Your task to perform on an android device: remove spam from my inbox in the gmail app Image 0: 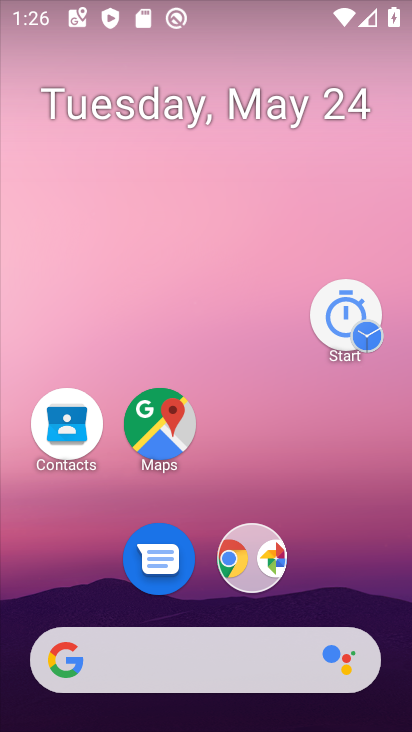
Step 0: drag from (270, 628) to (217, 242)
Your task to perform on an android device: remove spam from my inbox in the gmail app Image 1: 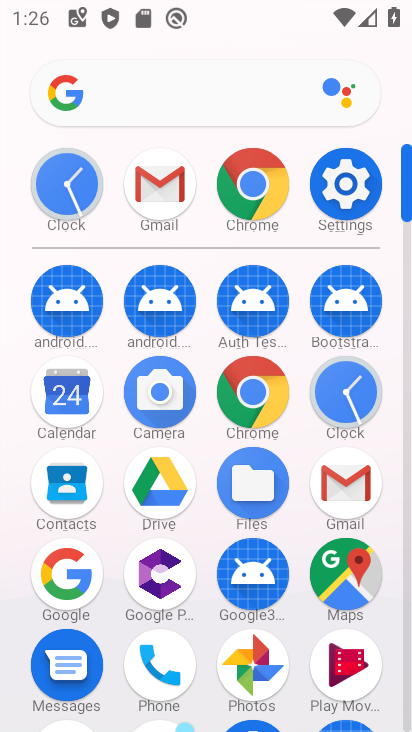
Step 1: click (328, 475)
Your task to perform on an android device: remove spam from my inbox in the gmail app Image 2: 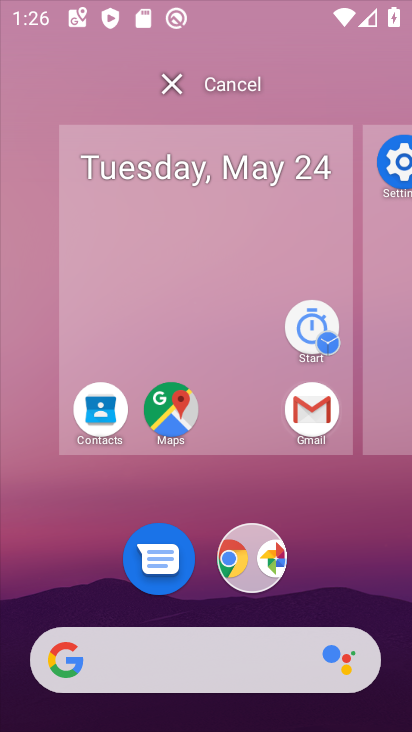
Step 2: click (347, 493)
Your task to perform on an android device: remove spam from my inbox in the gmail app Image 3: 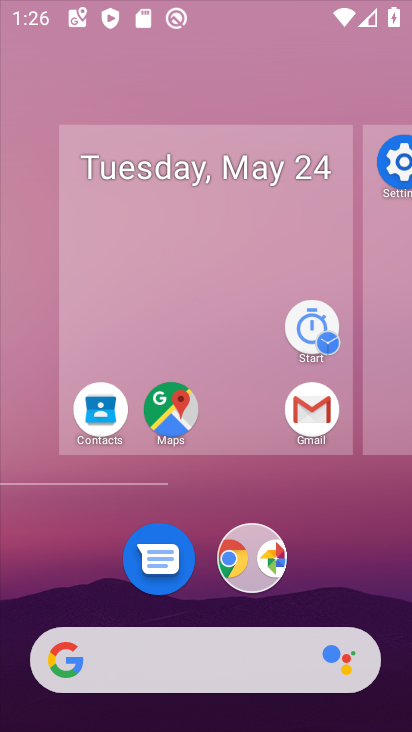
Step 3: click (349, 491)
Your task to perform on an android device: remove spam from my inbox in the gmail app Image 4: 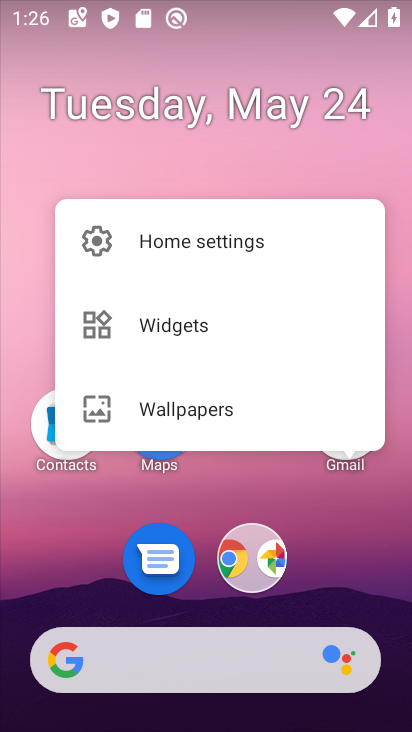
Step 4: drag from (300, 688) to (160, 34)
Your task to perform on an android device: remove spam from my inbox in the gmail app Image 5: 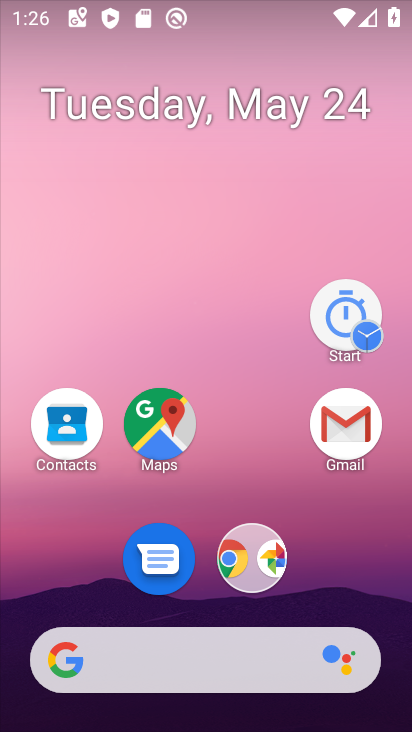
Step 5: drag from (322, 652) to (158, 31)
Your task to perform on an android device: remove spam from my inbox in the gmail app Image 6: 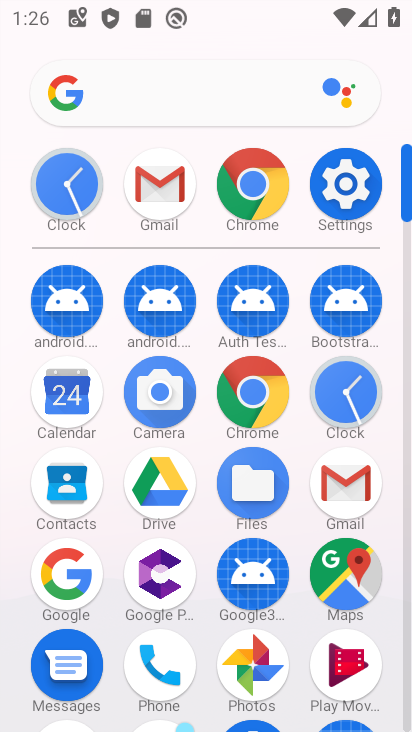
Step 6: drag from (342, 568) to (212, 11)
Your task to perform on an android device: remove spam from my inbox in the gmail app Image 7: 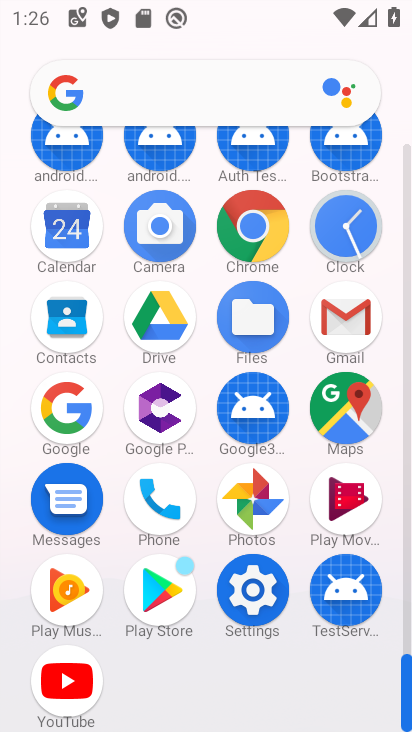
Step 7: click (333, 317)
Your task to perform on an android device: remove spam from my inbox in the gmail app Image 8: 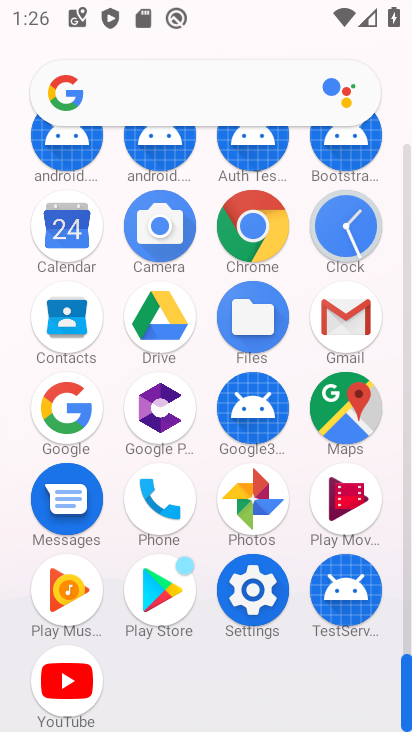
Step 8: click (333, 317)
Your task to perform on an android device: remove spam from my inbox in the gmail app Image 9: 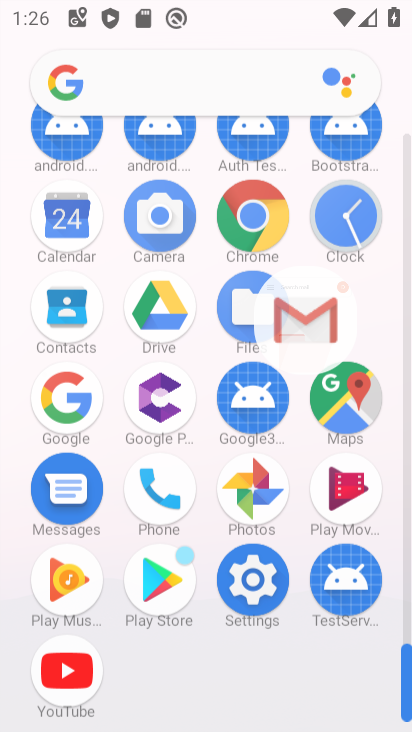
Step 9: click (341, 311)
Your task to perform on an android device: remove spam from my inbox in the gmail app Image 10: 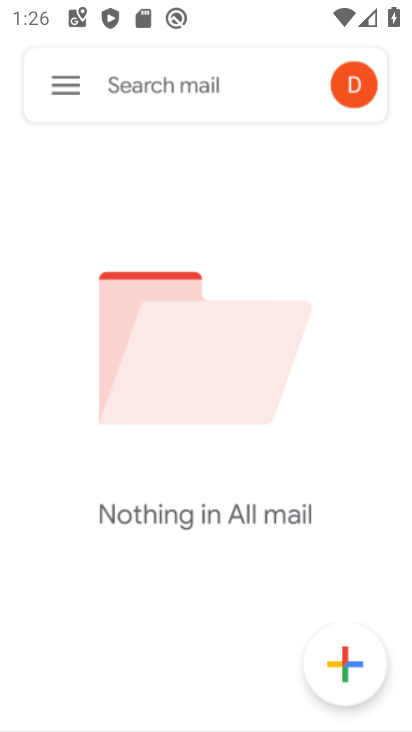
Step 10: click (348, 309)
Your task to perform on an android device: remove spam from my inbox in the gmail app Image 11: 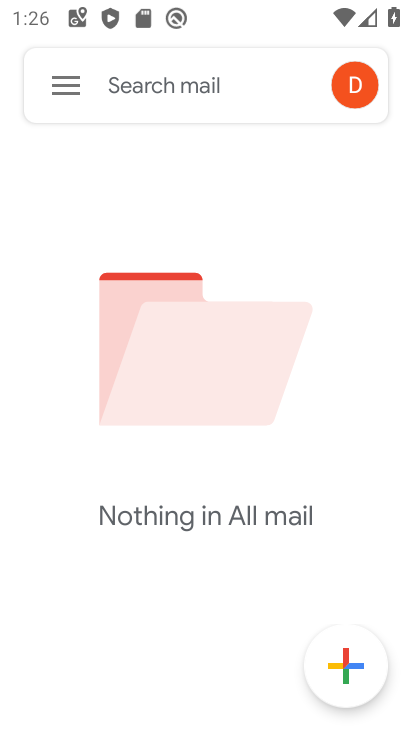
Step 11: click (348, 309)
Your task to perform on an android device: remove spam from my inbox in the gmail app Image 12: 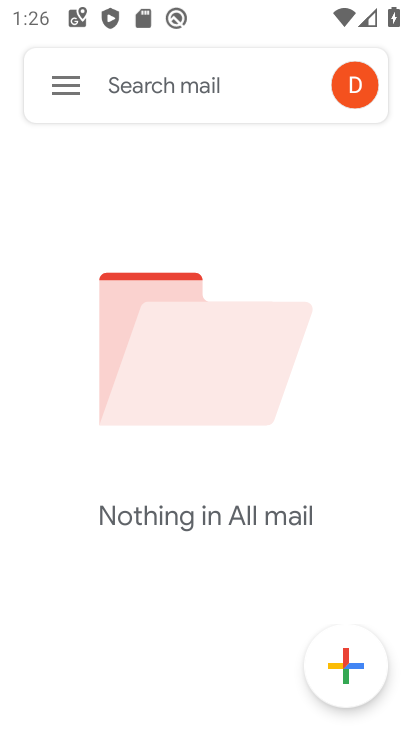
Step 12: click (78, 87)
Your task to perform on an android device: remove spam from my inbox in the gmail app Image 13: 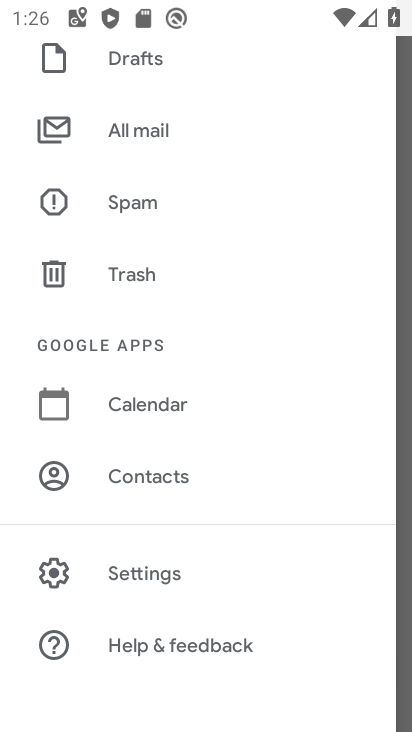
Step 13: click (149, 570)
Your task to perform on an android device: remove spam from my inbox in the gmail app Image 14: 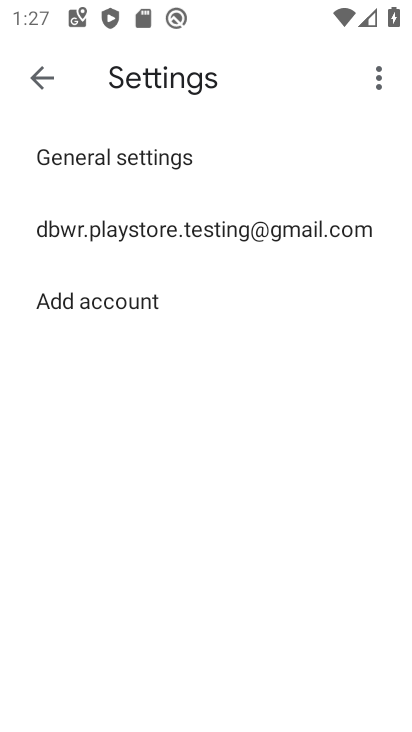
Step 14: click (145, 233)
Your task to perform on an android device: remove spam from my inbox in the gmail app Image 15: 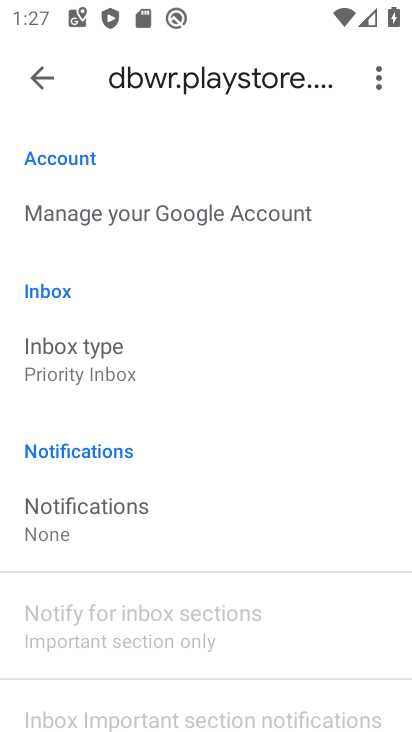
Step 15: drag from (134, 523) to (120, 190)
Your task to perform on an android device: remove spam from my inbox in the gmail app Image 16: 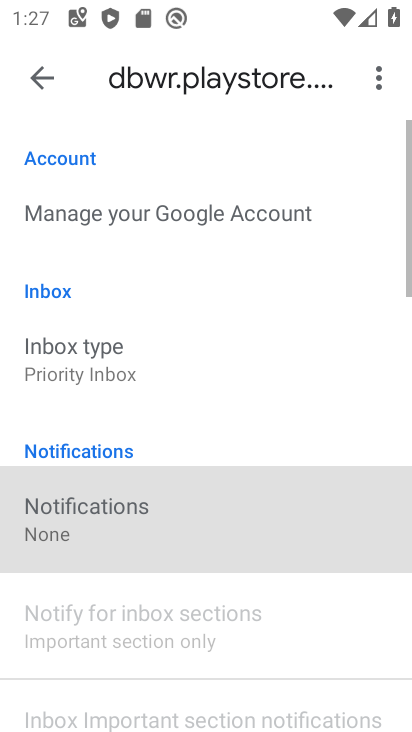
Step 16: drag from (139, 506) to (114, 77)
Your task to perform on an android device: remove spam from my inbox in the gmail app Image 17: 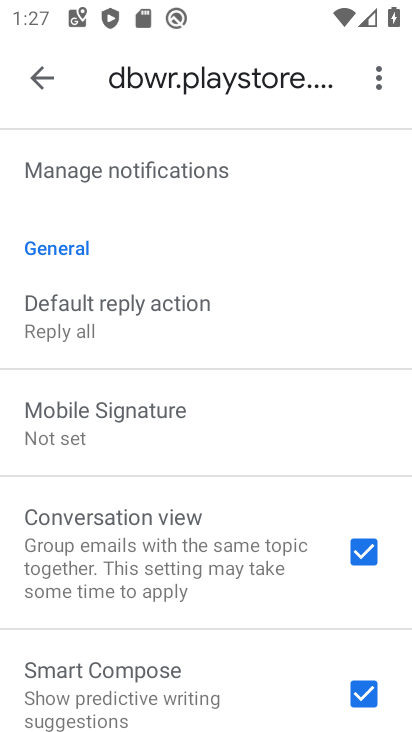
Step 17: drag from (163, 543) to (97, 74)
Your task to perform on an android device: remove spam from my inbox in the gmail app Image 18: 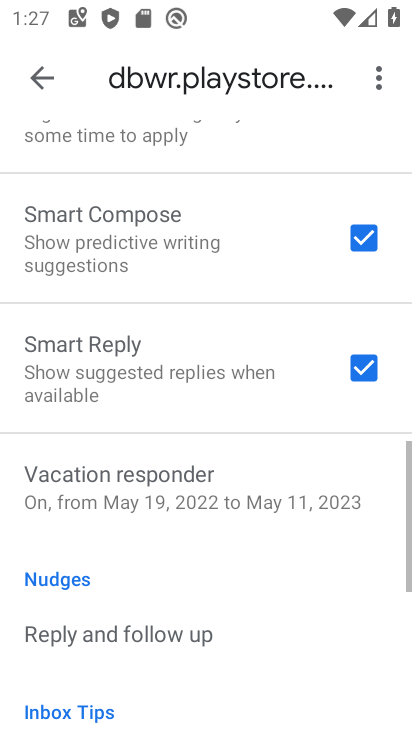
Step 18: drag from (194, 509) to (175, 104)
Your task to perform on an android device: remove spam from my inbox in the gmail app Image 19: 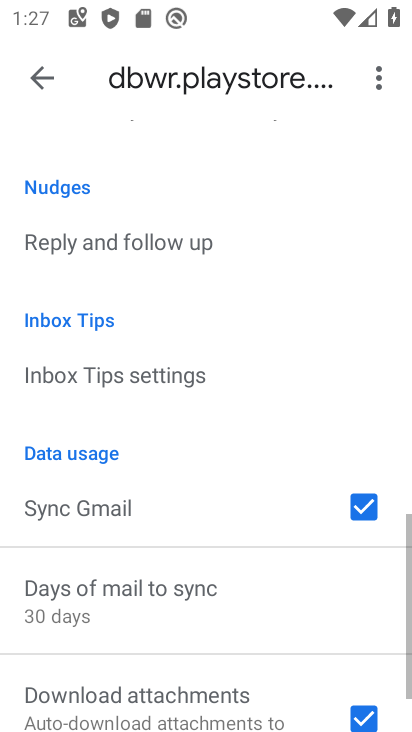
Step 19: drag from (71, 192) to (145, 588)
Your task to perform on an android device: remove spam from my inbox in the gmail app Image 20: 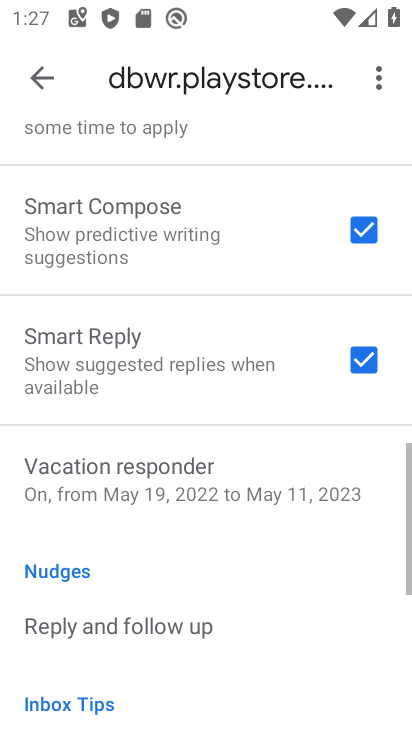
Step 20: click (35, 73)
Your task to perform on an android device: remove spam from my inbox in the gmail app Image 21: 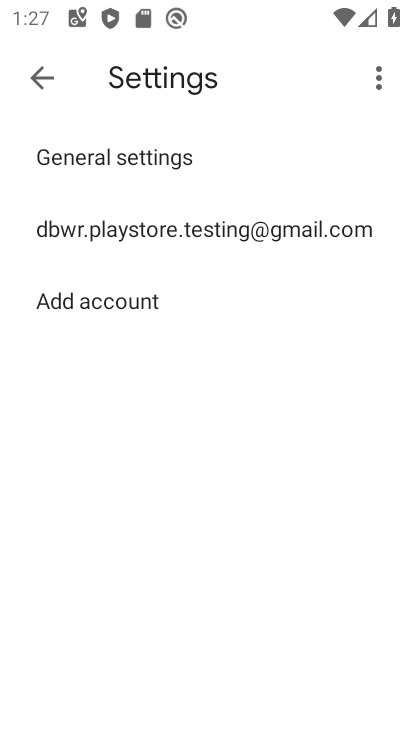
Step 21: click (31, 72)
Your task to perform on an android device: remove spam from my inbox in the gmail app Image 22: 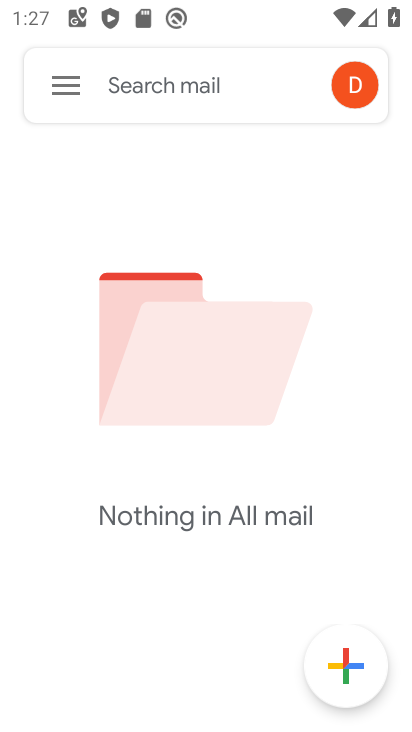
Step 22: click (63, 87)
Your task to perform on an android device: remove spam from my inbox in the gmail app Image 23: 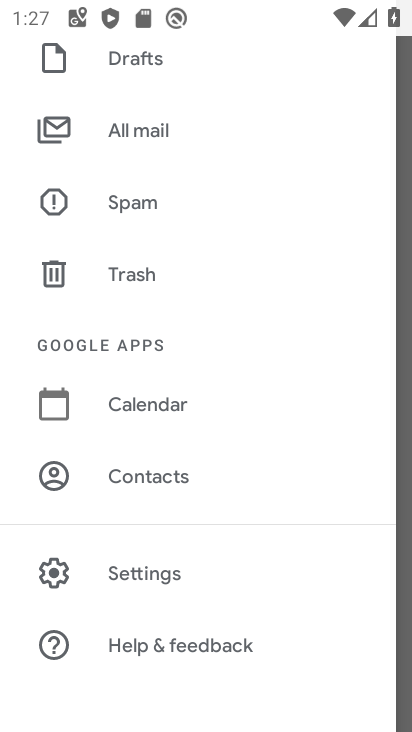
Step 23: click (121, 207)
Your task to perform on an android device: remove spam from my inbox in the gmail app Image 24: 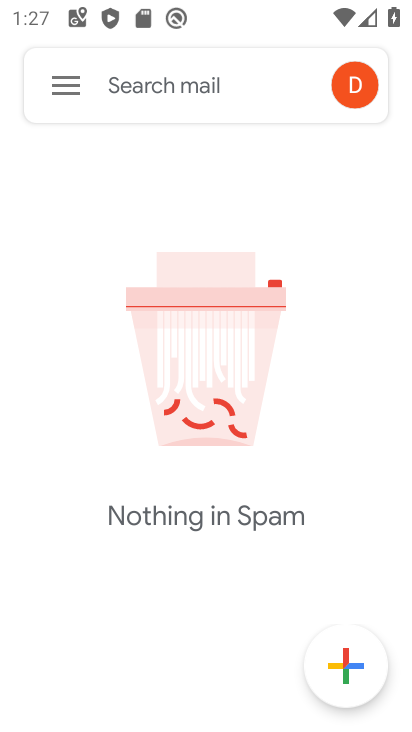
Step 24: task complete